Your task to perform on an android device: open a new tab in the chrome app Image 0: 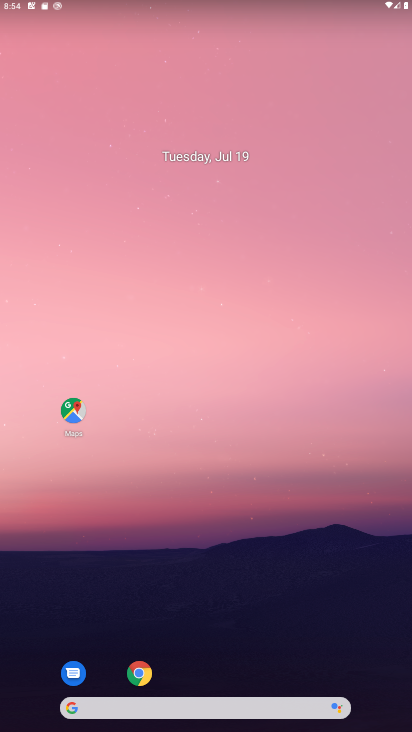
Step 0: click (138, 676)
Your task to perform on an android device: open a new tab in the chrome app Image 1: 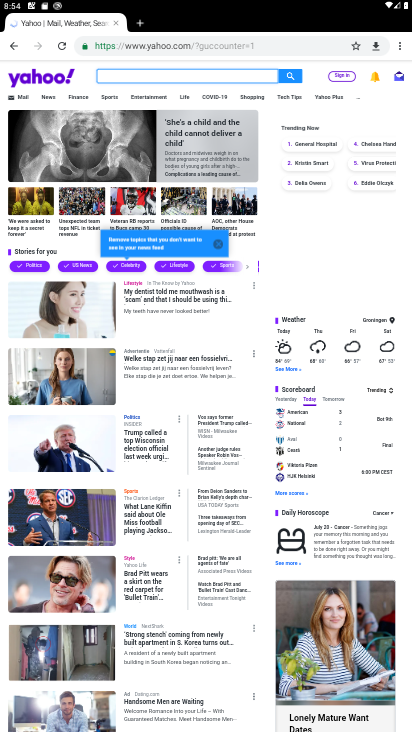
Step 1: click (399, 49)
Your task to perform on an android device: open a new tab in the chrome app Image 2: 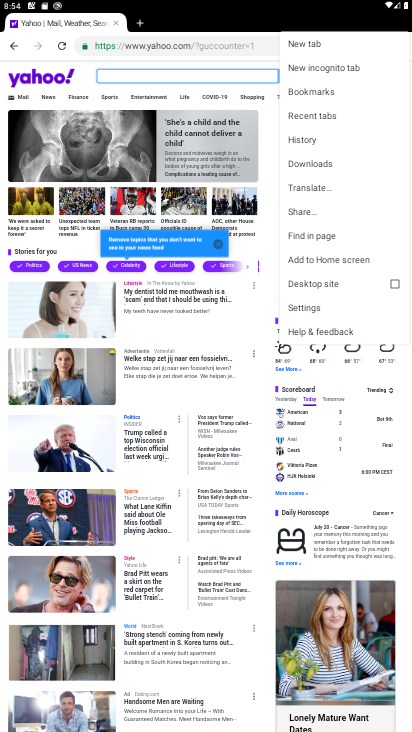
Step 2: click (308, 46)
Your task to perform on an android device: open a new tab in the chrome app Image 3: 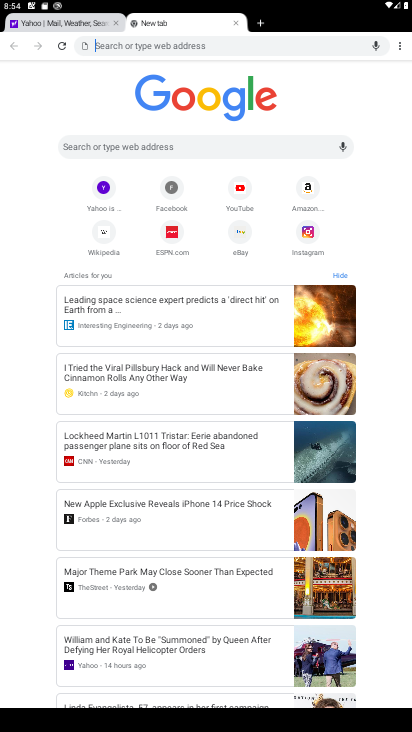
Step 3: task complete